Your task to perform on an android device: Open the Play Movies app and select the watchlist tab. Image 0: 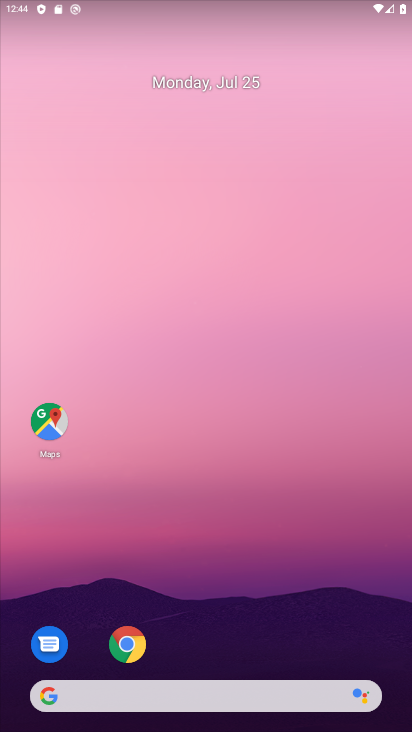
Step 0: drag from (200, 722) to (201, 87)
Your task to perform on an android device: Open the Play Movies app and select the watchlist tab. Image 1: 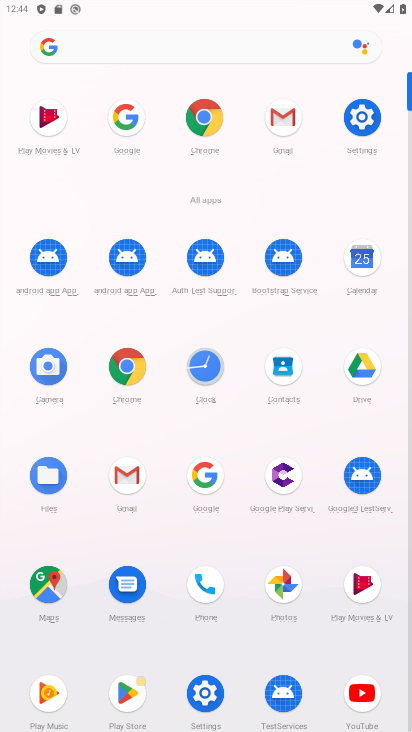
Step 1: click (363, 586)
Your task to perform on an android device: Open the Play Movies app and select the watchlist tab. Image 2: 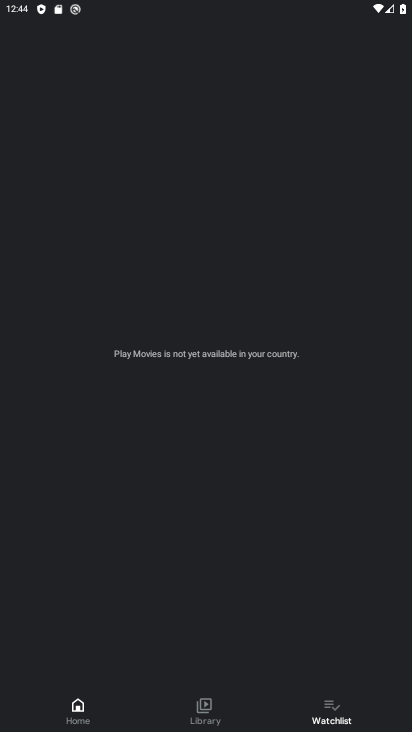
Step 2: task complete